Your task to perform on an android device: What's the weather going to be this weekend? Image 0: 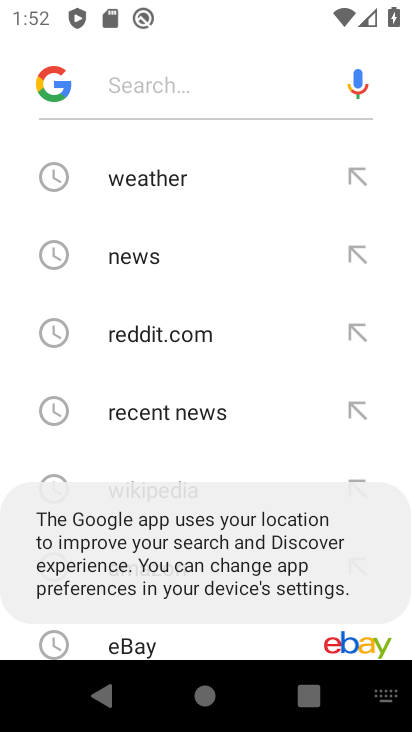
Step 0: press back button
Your task to perform on an android device: What's the weather going to be this weekend? Image 1: 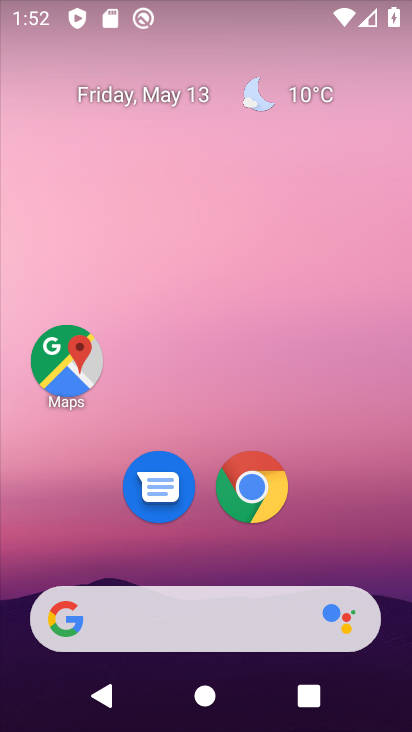
Step 1: click (290, 84)
Your task to perform on an android device: What's the weather going to be this weekend? Image 2: 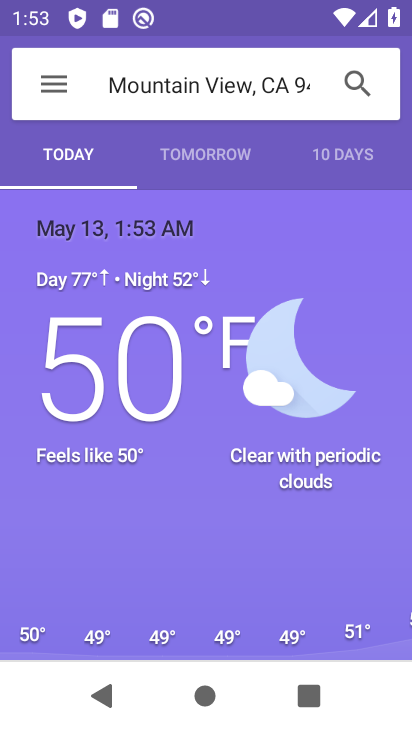
Step 2: click (371, 161)
Your task to perform on an android device: What's the weather going to be this weekend? Image 3: 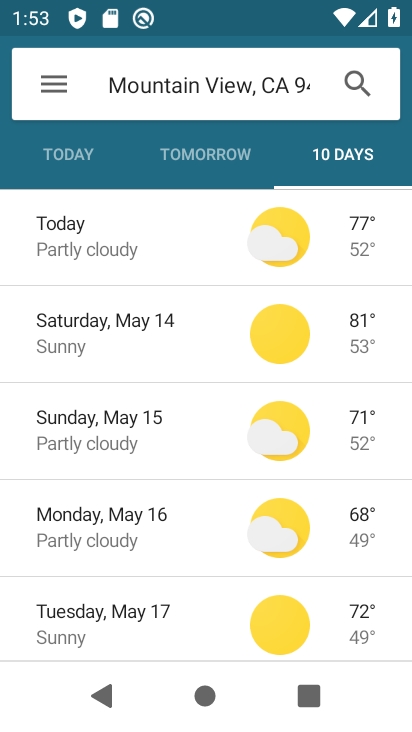
Step 3: task complete